Your task to perform on an android device: open app "Adobe Acrobat Reader: Edit PDF" Image 0: 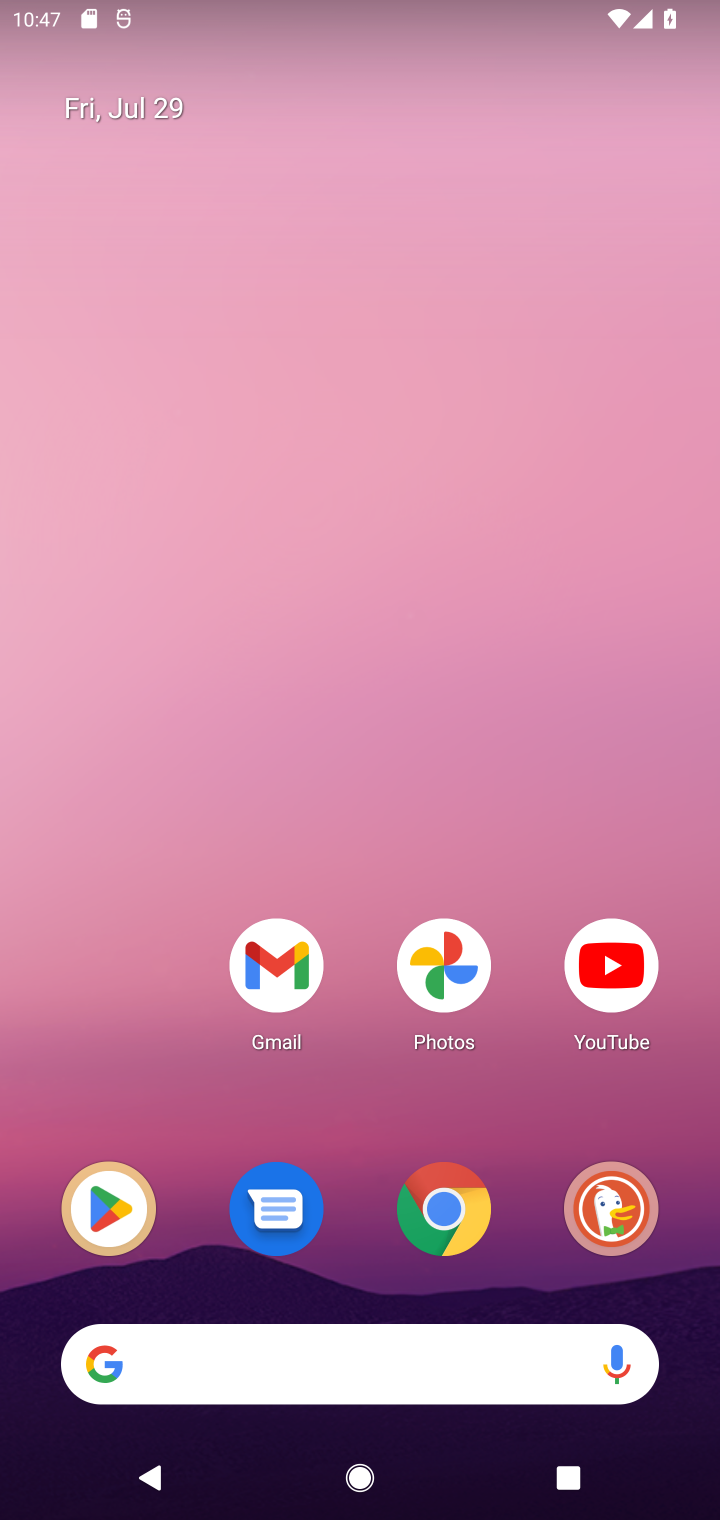
Step 0: drag from (534, 1159) to (503, 39)
Your task to perform on an android device: open app "Adobe Acrobat Reader: Edit PDF" Image 1: 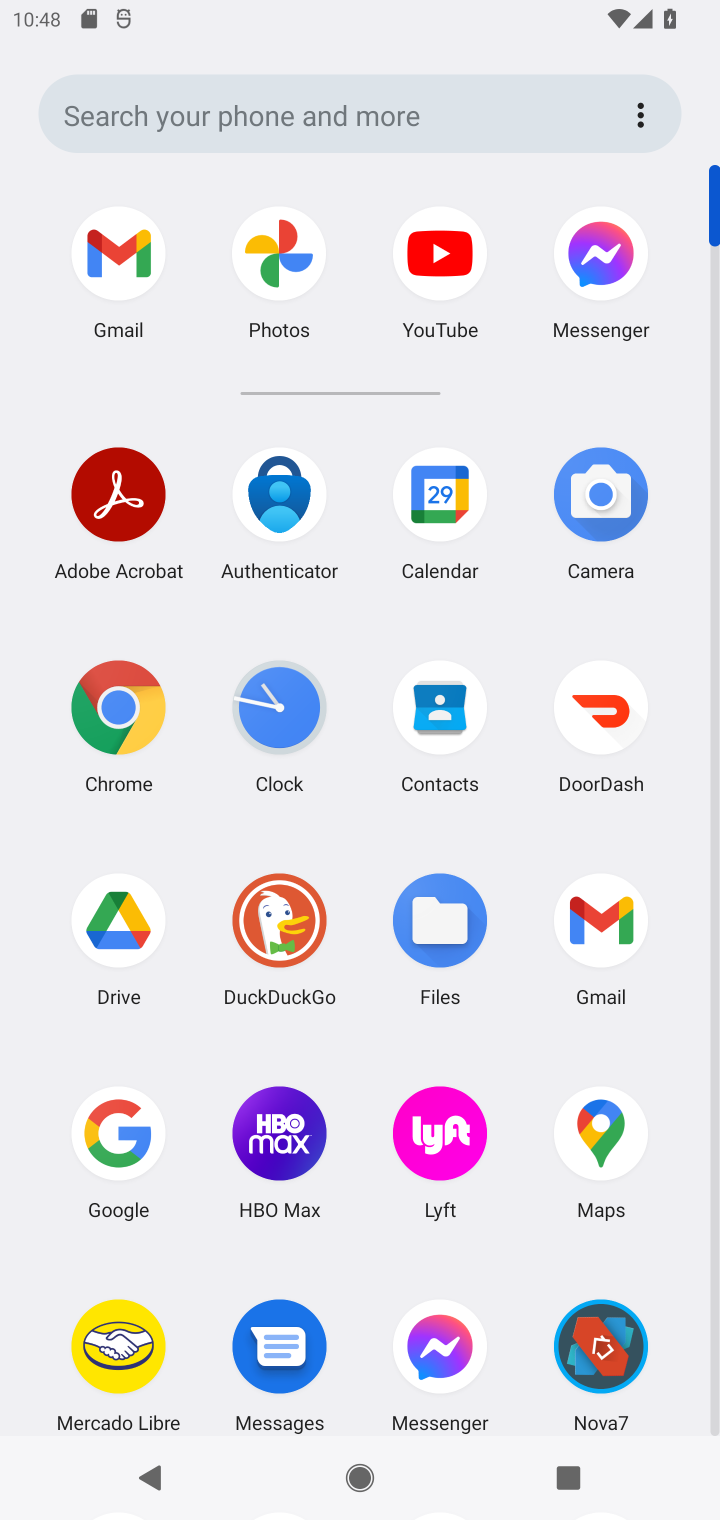
Step 1: drag from (354, 1258) to (397, 512)
Your task to perform on an android device: open app "Adobe Acrobat Reader: Edit PDF" Image 2: 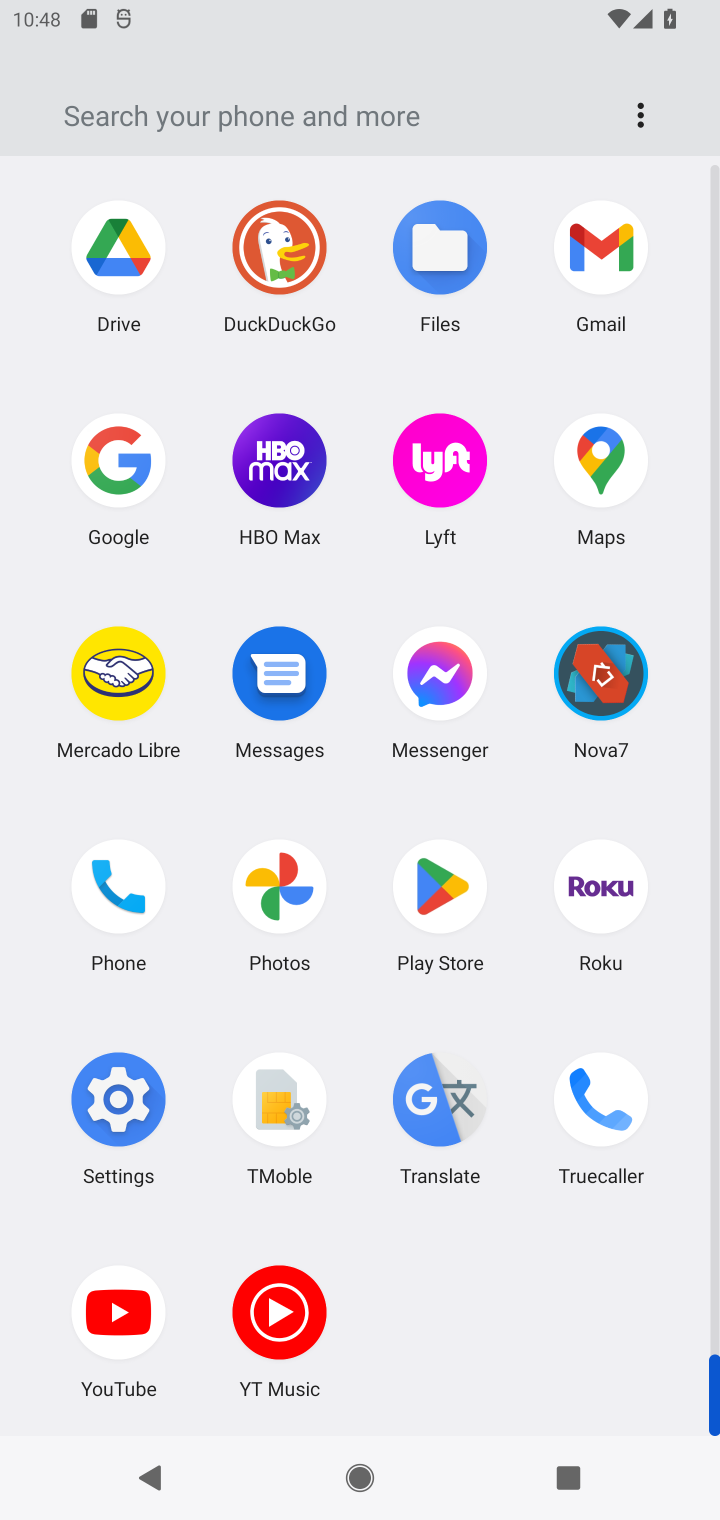
Step 2: click (431, 902)
Your task to perform on an android device: open app "Adobe Acrobat Reader: Edit PDF" Image 3: 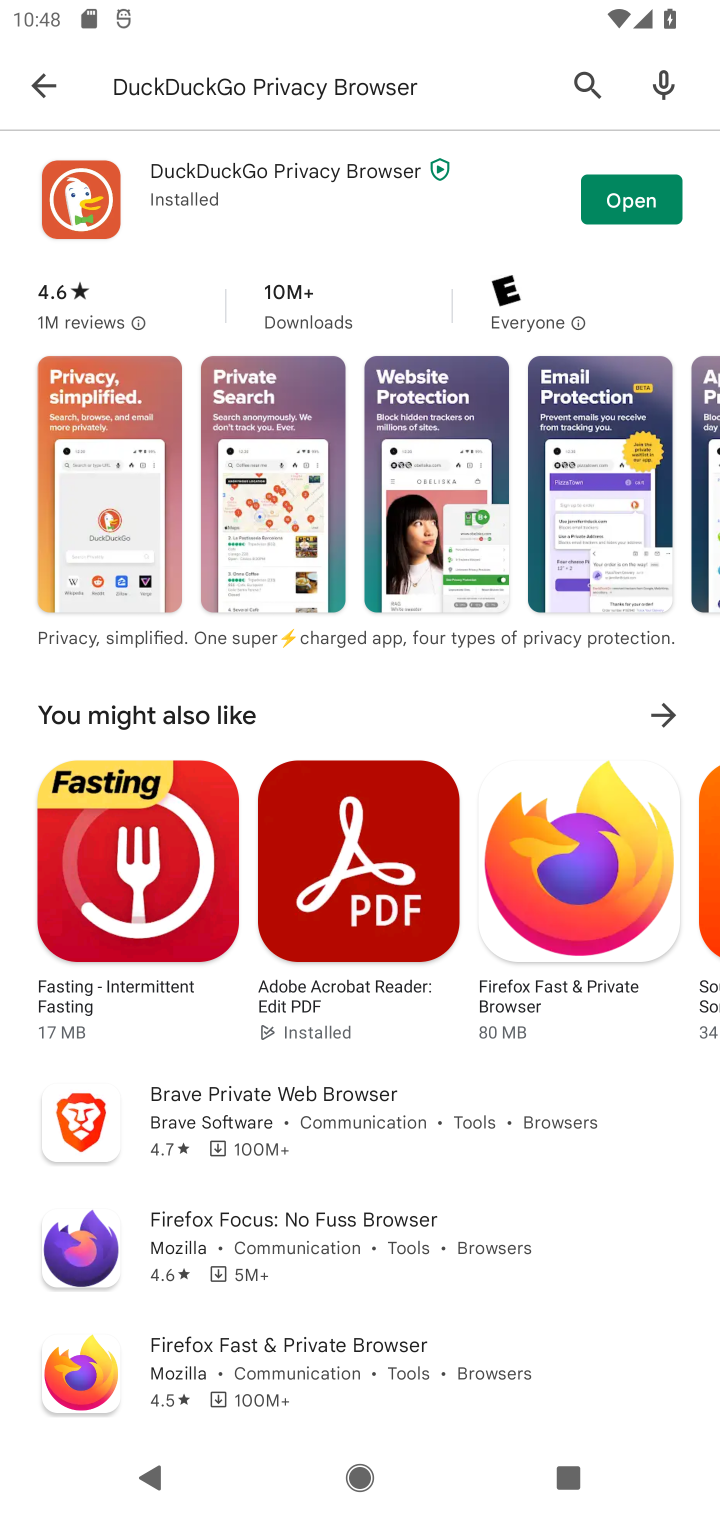
Step 3: click (283, 76)
Your task to perform on an android device: open app "Adobe Acrobat Reader: Edit PDF" Image 4: 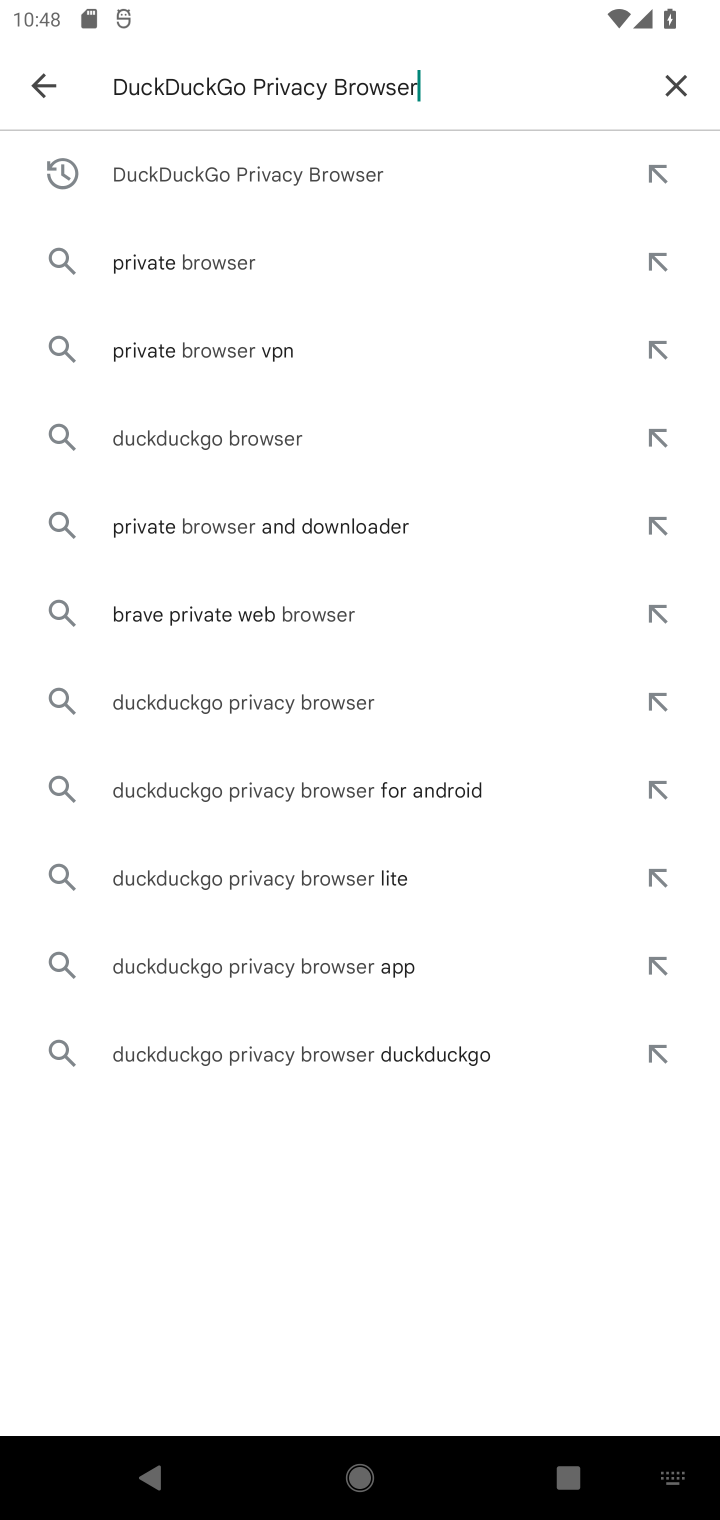
Step 4: click (670, 74)
Your task to perform on an android device: open app "Adobe Acrobat Reader: Edit PDF" Image 5: 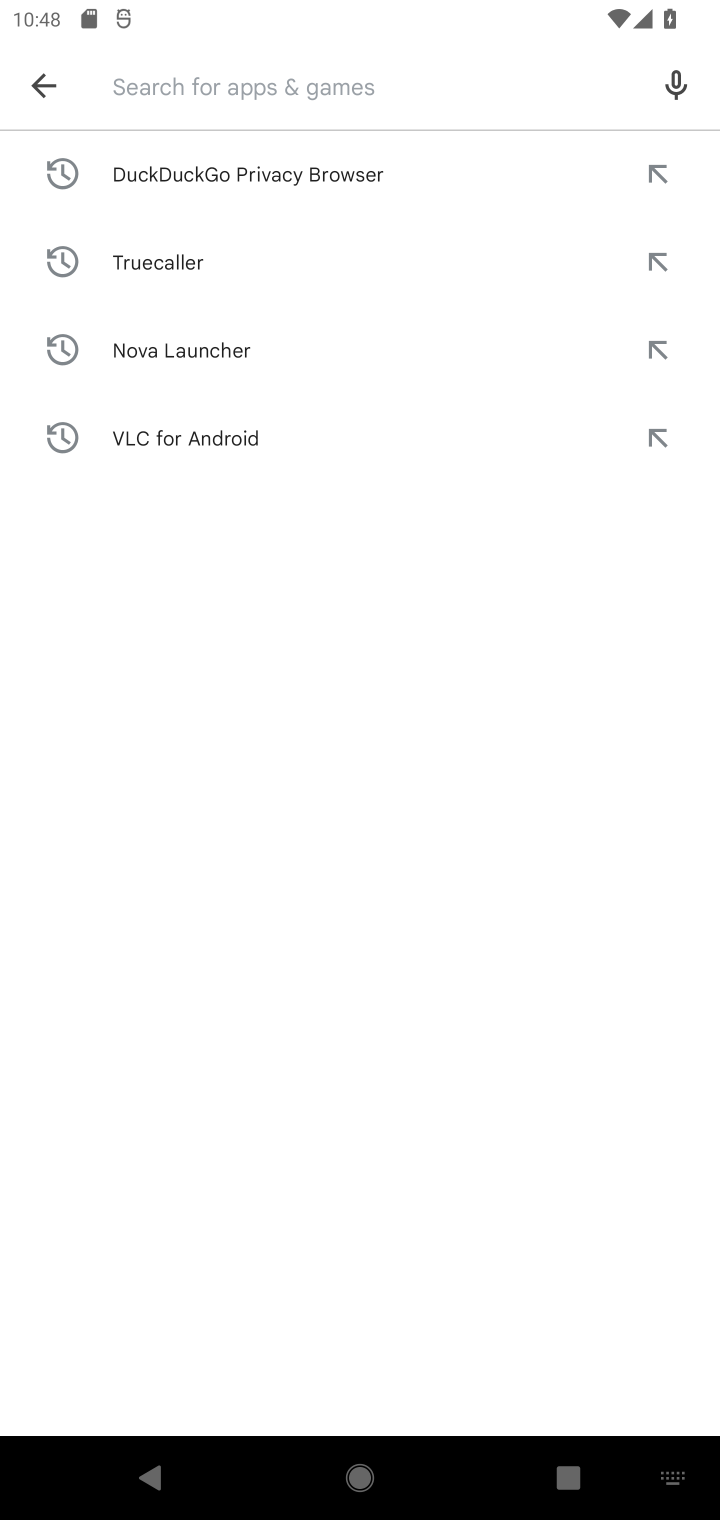
Step 5: type "Adobe Acrobat Reader: Edit PDF"
Your task to perform on an android device: open app "Adobe Acrobat Reader: Edit PDF" Image 6: 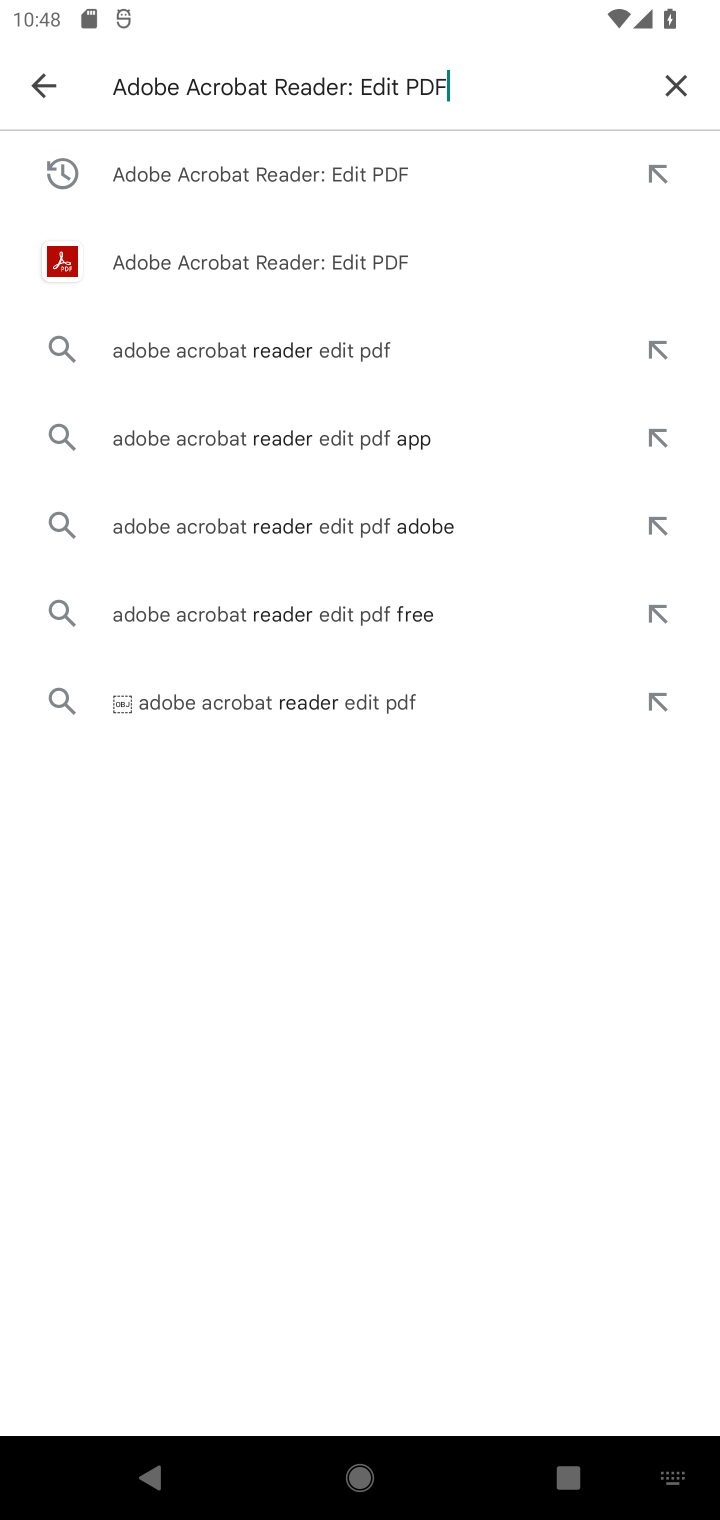
Step 6: press enter
Your task to perform on an android device: open app "Adobe Acrobat Reader: Edit PDF" Image 7: 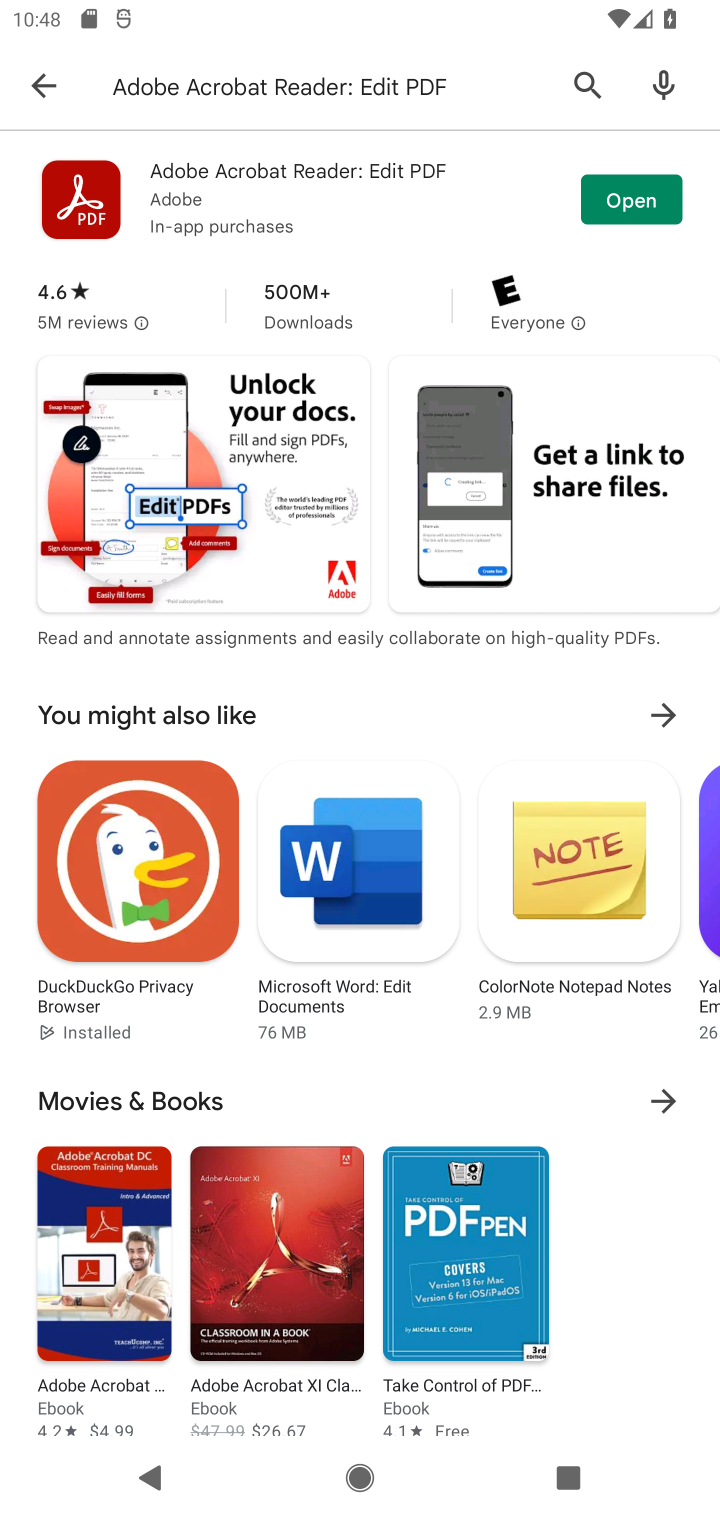
Step 7: click (637, 182)
Your task to perform on an android device: open app "Adobe Acrobat Reader: Edit PDF" Image 8: 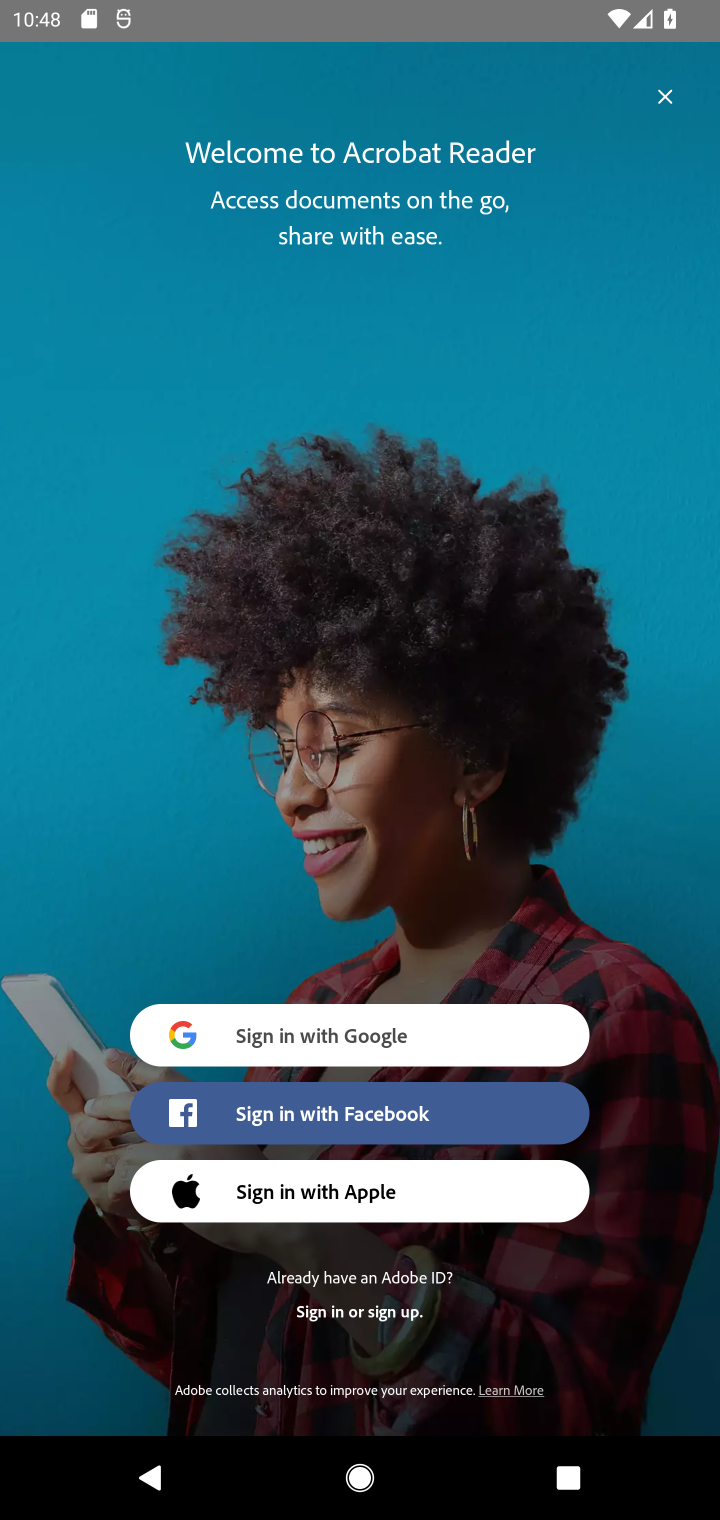
Step 8: task complete